Your task to perform on an android device: Open location settings Image 0: 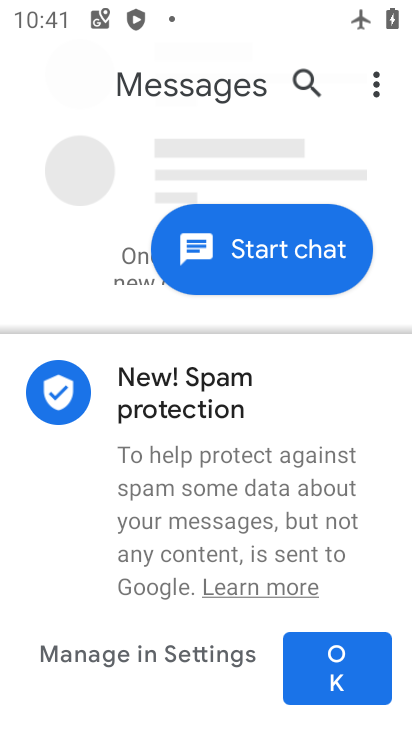
Step 0: press home button
Your task to perform on an android device: Open location settings Image 1: 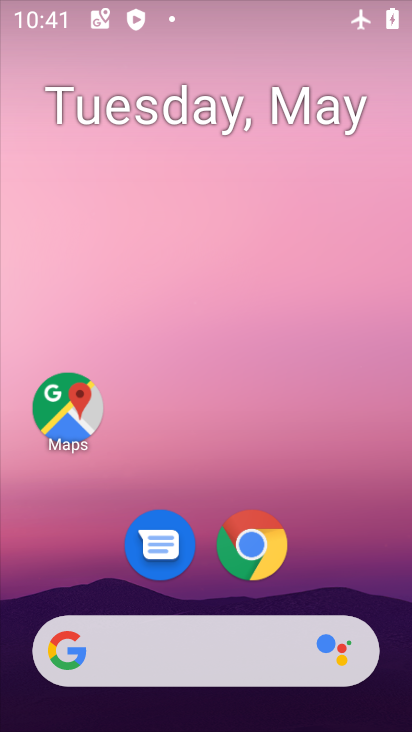
Step 1: drag from (193, 643) to (233, 132)
Your task to perform on an android device: Open location settings Image 2: 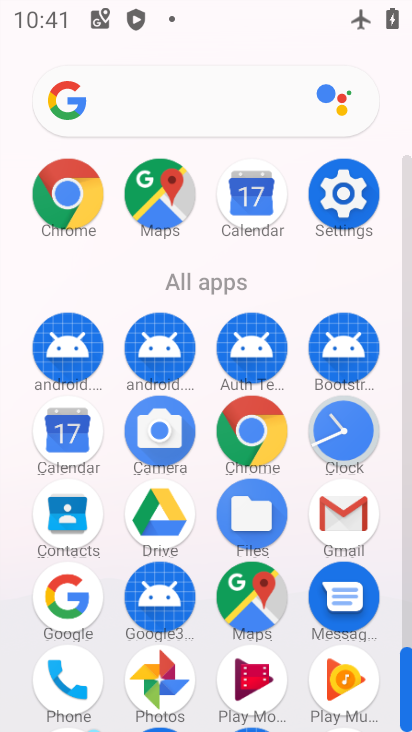
Step 2: click (339, 199)
Your task to perform on an android device: Open location settings Image 3: 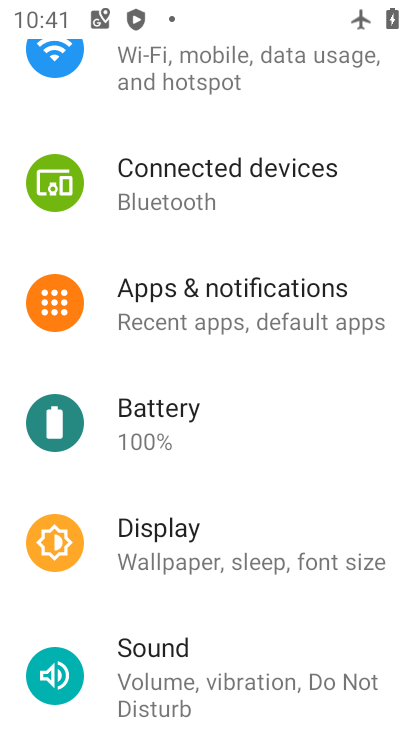
Step 3: drag from (191, 533) to (226, 285)
Your task to perform on an android device: Open location settings Image 4: 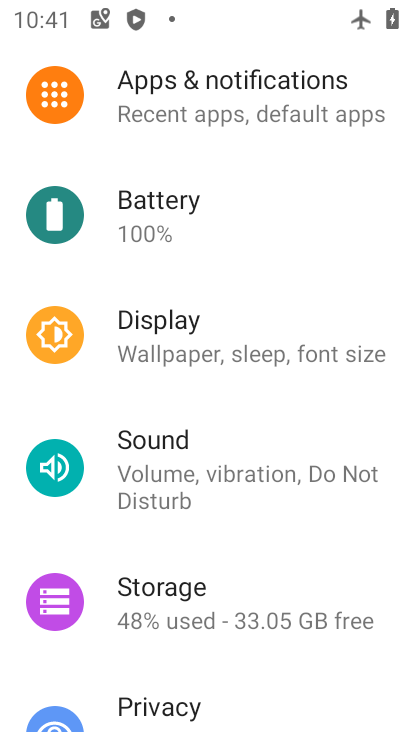
Step 4: drag from (192, 581) to (236, 192)
Your task to perform on an android device: Open location settings Image 5: 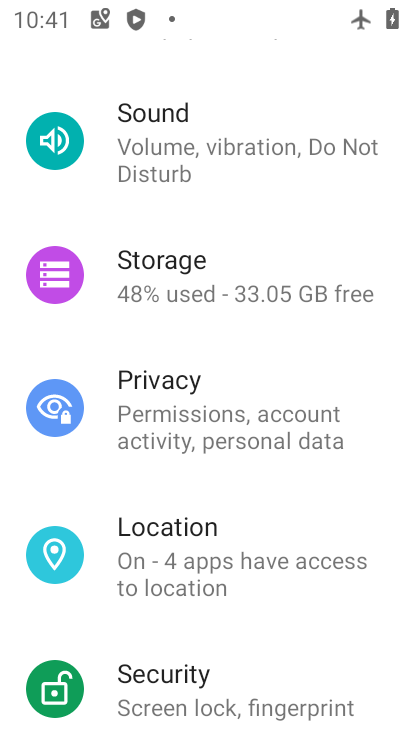
Step 5: click (275, 569)
Your task to perform on an android device: Open location settings Image 6: 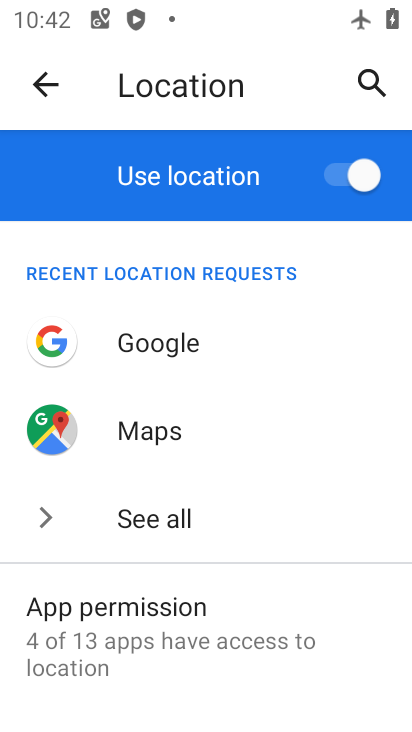
Step 6: task complete